Your task to perform on an android device: remove spam from my inbox in the gmail app Image 0: 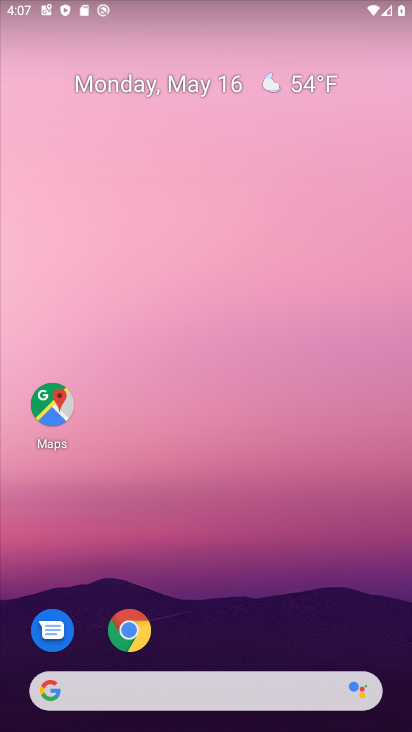
Step 0: drag from (229, 649) to (230, 81)
Your task to perform on an android device: remove spam from my inbox in the gmail app Image 1: 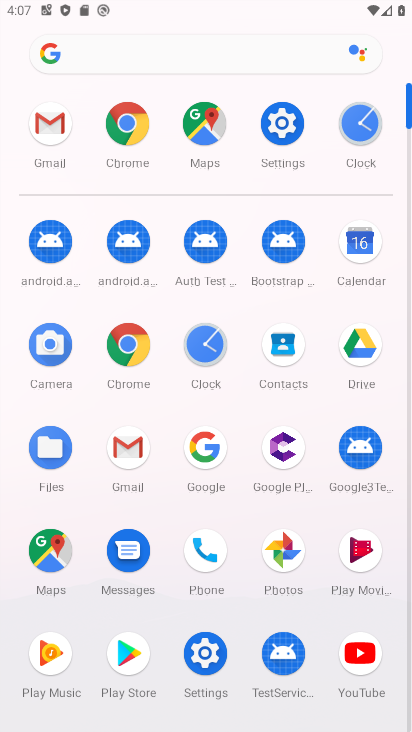
Step 1: click (59, 140)
Your task to perform on an android device: remove spam from my inbox in the gmail app Image 2: 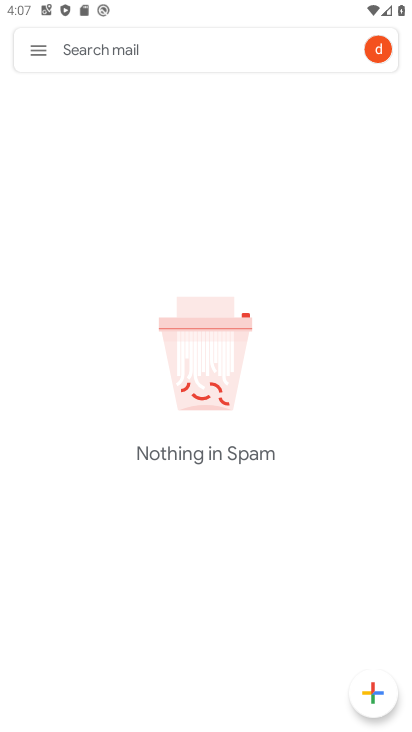
Step 2: click (43, 49)
Your task to perform on an android device: remove spam from my inbox in the gmail app Image 3: 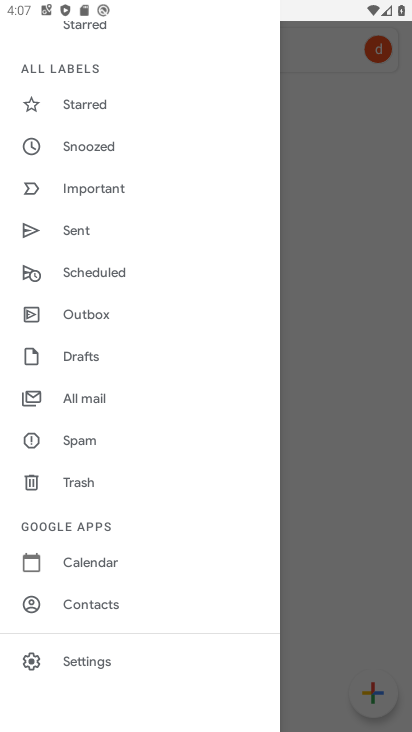
Step 3: click (105, 444)
Your task to perform on an android device: remove spam from my inbox in the gmail app Image 4: 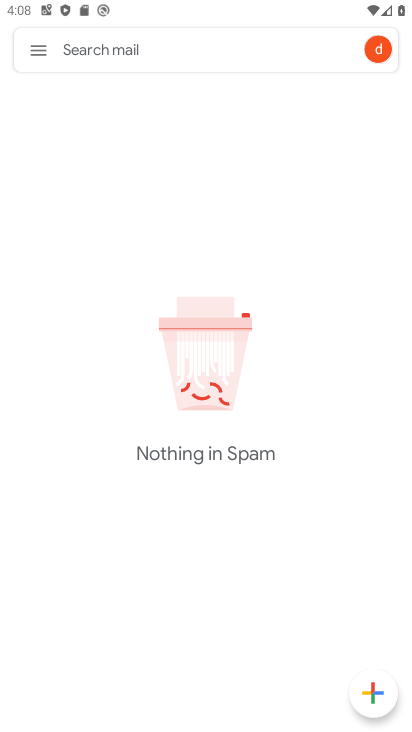
Step 4: task complete